Your task to perform on an android device: Go to Wikipedia Image 0: 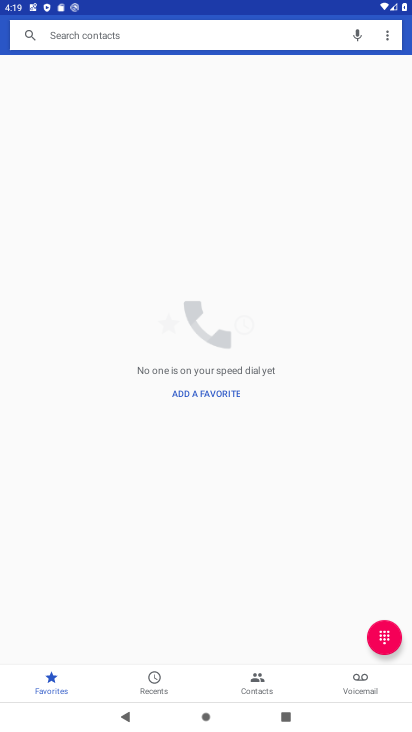
Step 0: press home button
Your task to perform on an android device: Go to Wikipedia Image 1: 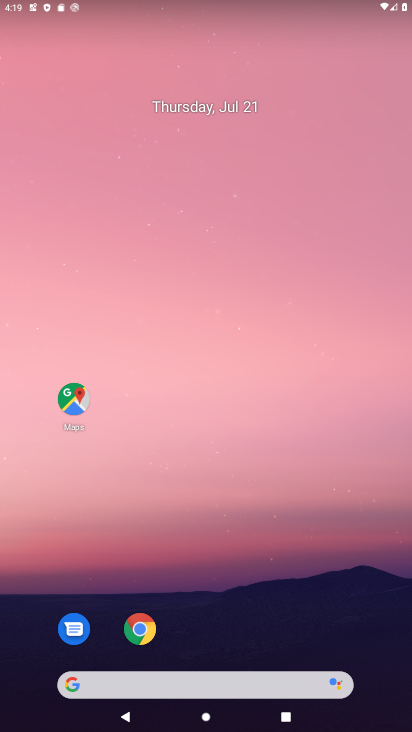
Step 1: drag from (326, 505) to (281, 64)
Your task to perform on an android device: Go to Wikipedia Image 2: 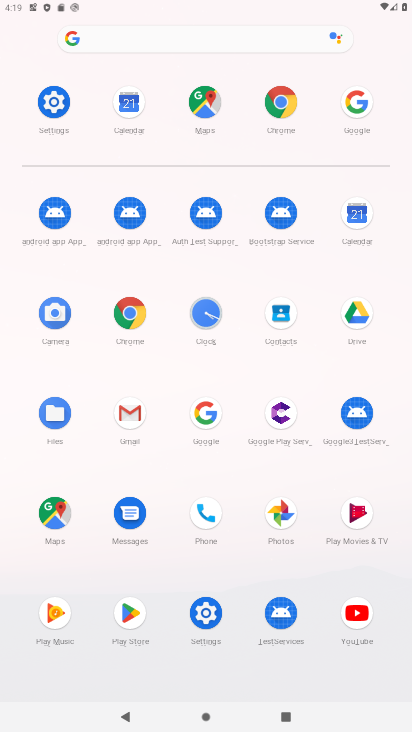
Step 2: click (285, 97)
Your task to perform on an android device: Go to Wikipedia Image 3: 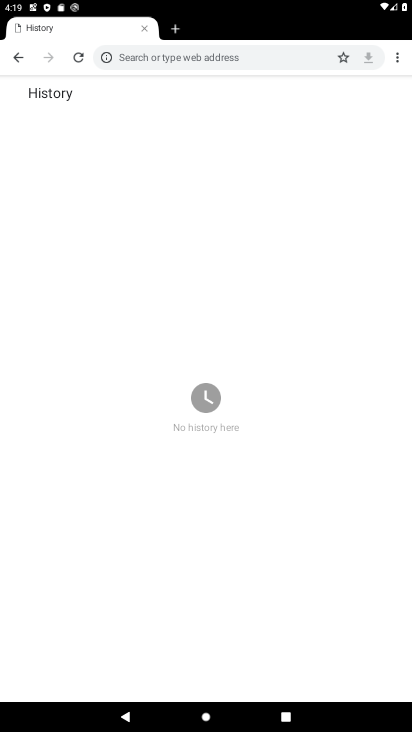
Step 3: click (8, 56)
Your task to perform on an android device: Go to Wikipedia Image 4: 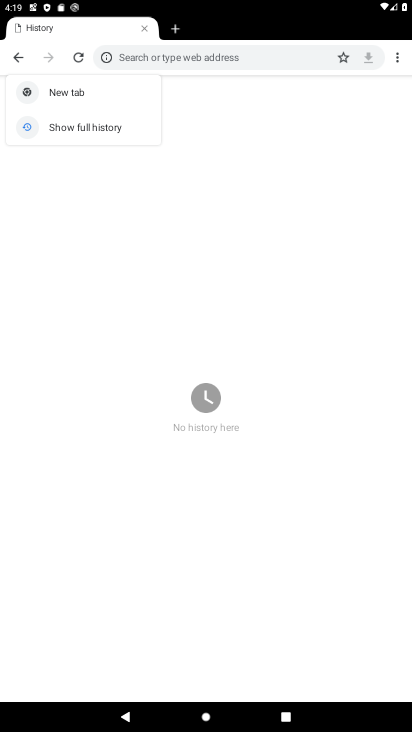
Step 4: click (17, 61)
Your task to perform on an android device: Go to Wikipedia Image 5: 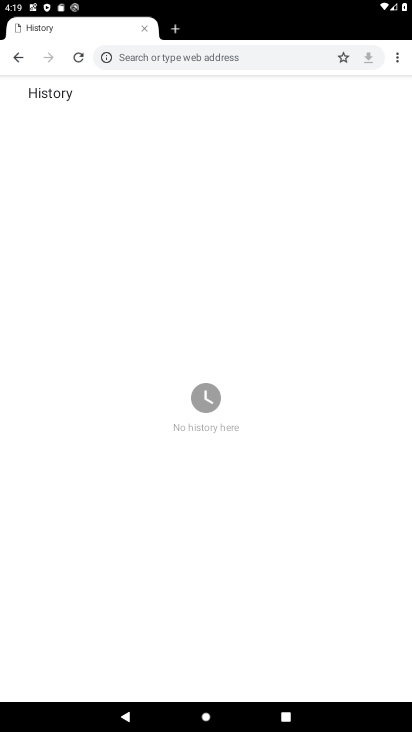
Step 5: click (19, 60)
Your task to perform on an android device: Go to Wikipedia Image 6: 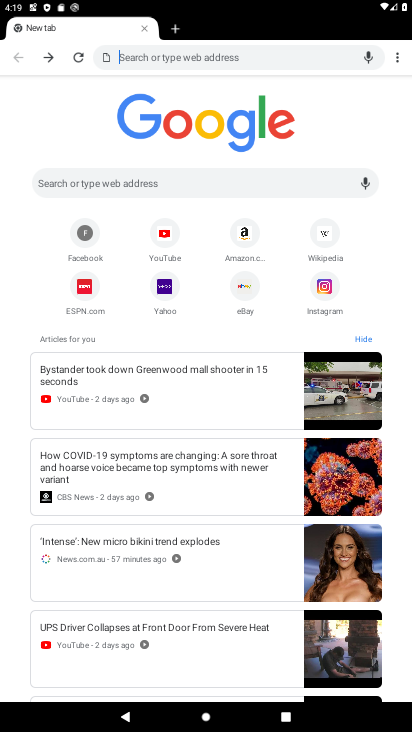
Step 6: click (325, 234)
Your task to perform on an android device: Go to Wikipedia Image 7: 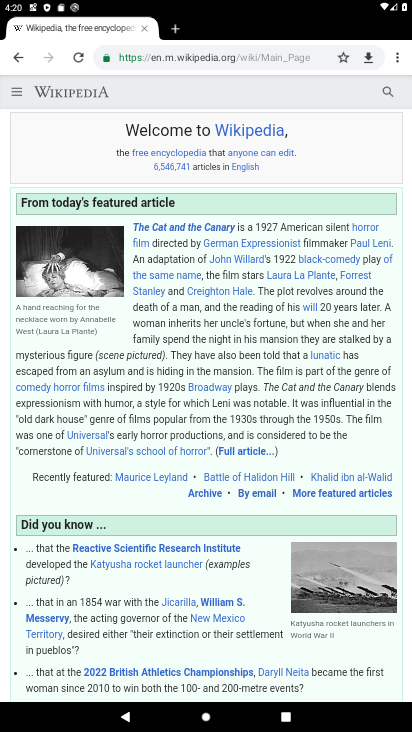
Step 7: task complete